Your task to perform on an android device: Go to CNN.com Image 0: 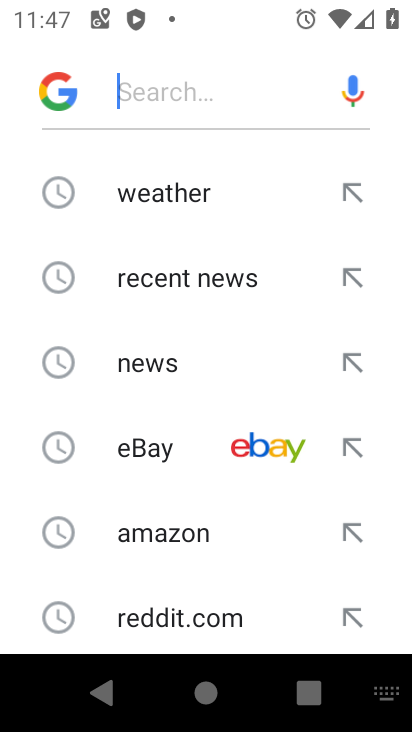
Step 0: press home button
Your task to perform on an android device: Go to CNN.com Image 1: 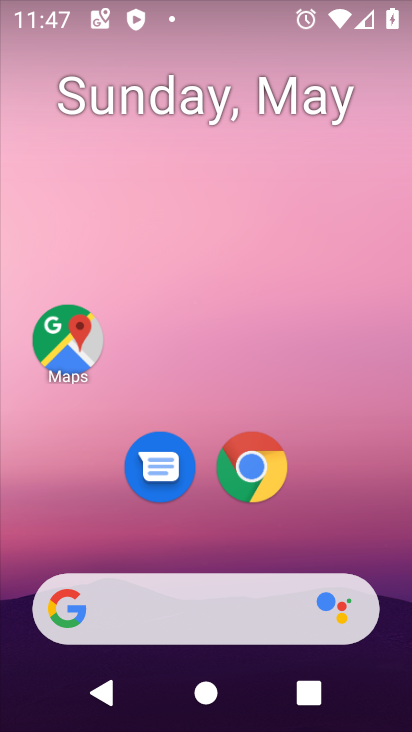
Step 1: click (252, 457)
Your task to perform on an android device: Go to CNN.com Image 2: 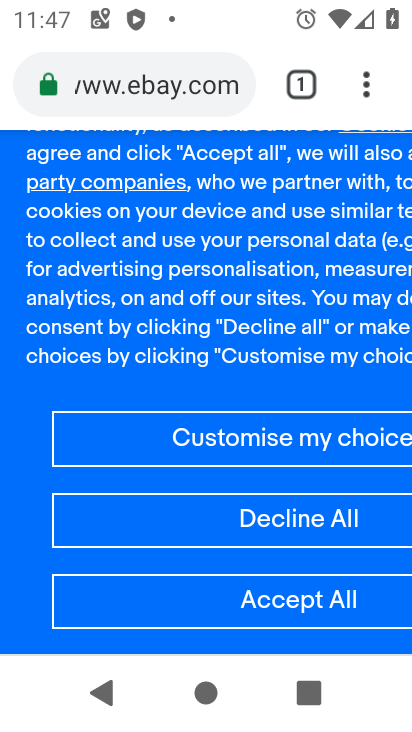
Step 2: click (108, 94)
Your task to perform on an android device: Go to CNN.com Image 3: 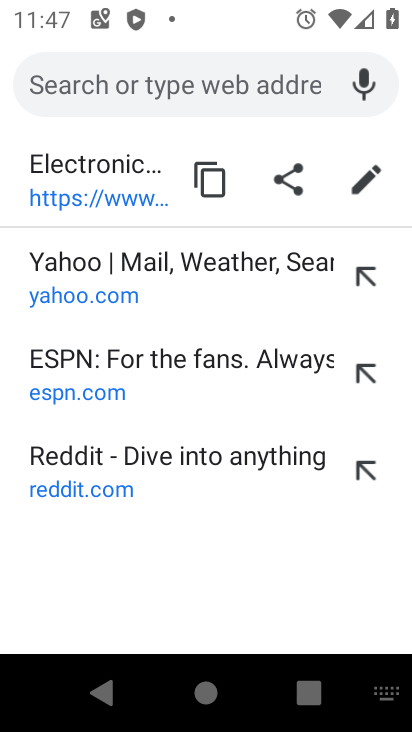
Step 3: type "cnn.com"
Your task to perform on an android device: Go to CNN.com Image 4: 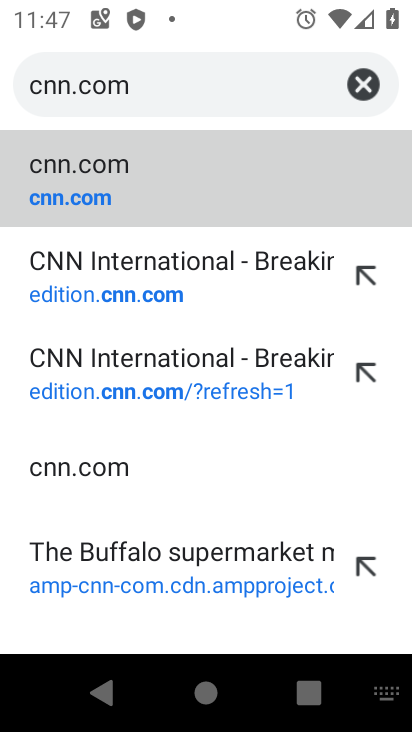
Step 4: click (72, 205)
Your task to perform on an android device: Go to CNN.com Image 5: 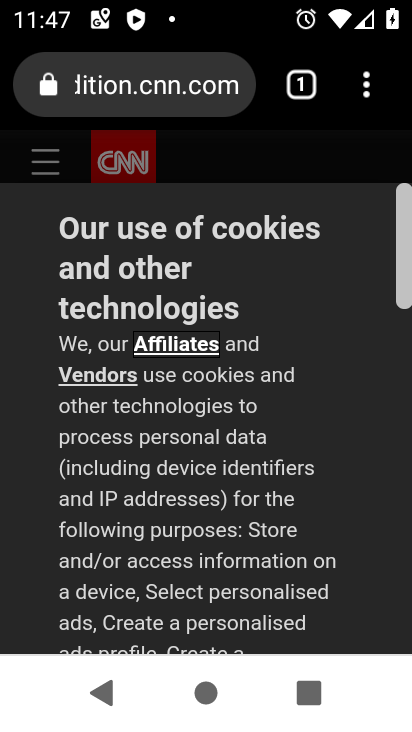
Step 5: task complete